Your task to perform on an android device: turn on location history Image 0: 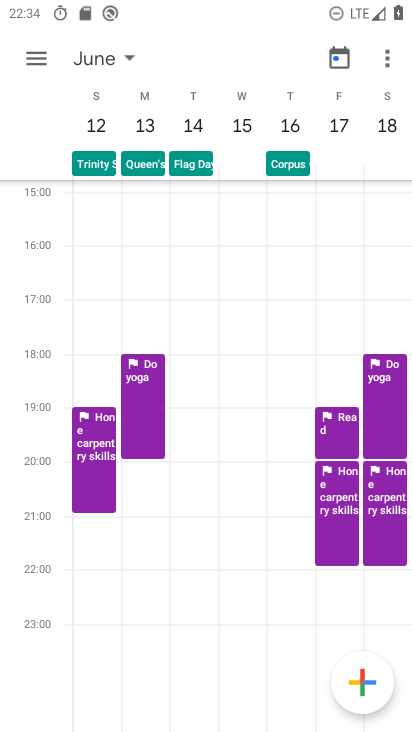
Step 0: press home button
Your task to perform on an android device: turn on location history Image 1: 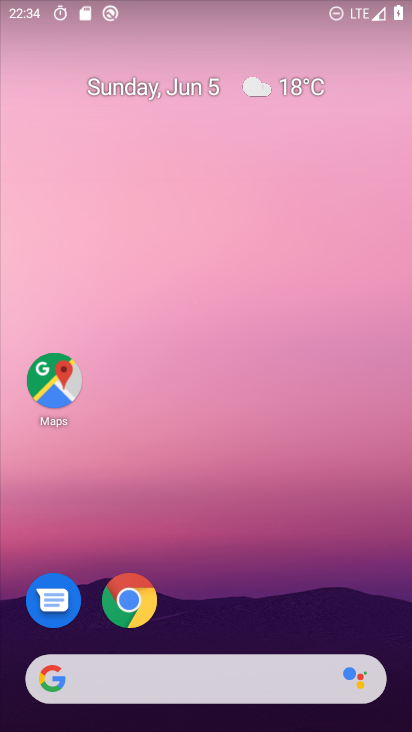
Step 1: drag from (323, 576) to (248, 127)
Your task to perform on an android device: turn on location history Image 2: 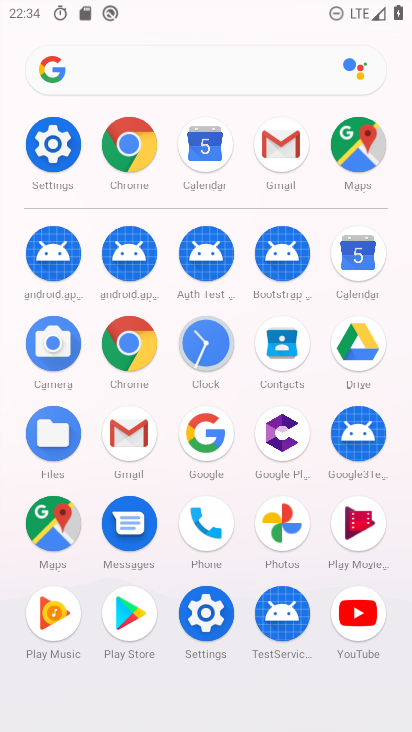
Step 2: click (59, 144)
Your task to perform on an android device: turn on location history Image 3: 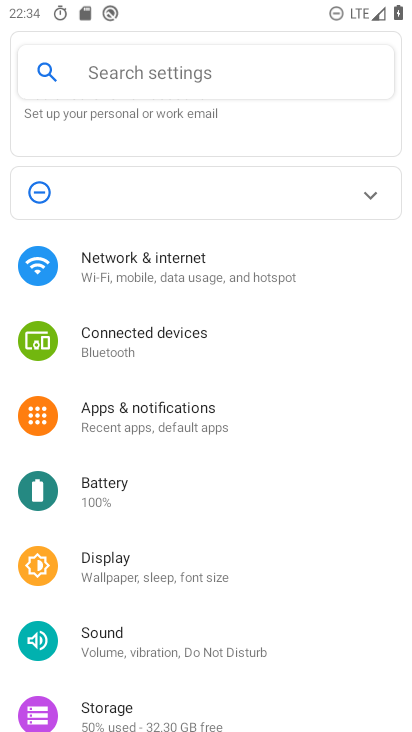
Step 3: drag from (217, 630) to (294, 160)
Your task to perform on an android device: turn on location history Image 4: 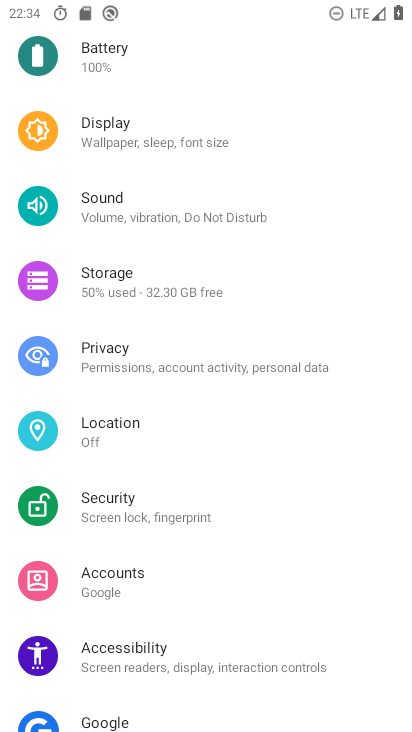
Step 4: click (97, 426)
Your task to perform on an android device: turn on location history Image 5: 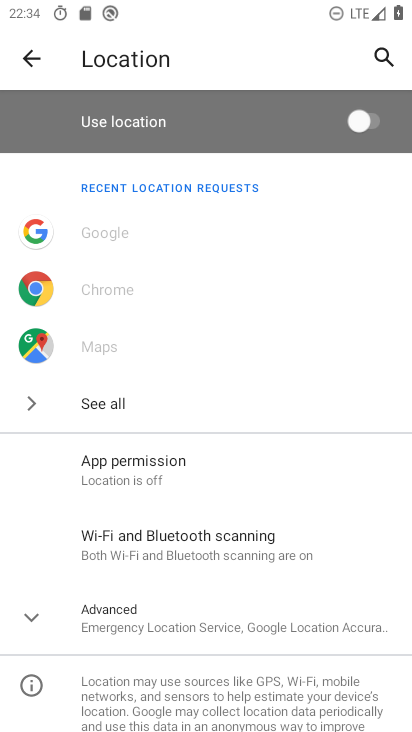
Step 5: click (121, 633)
Your task to perform on an android device: turn on location history Image 6: 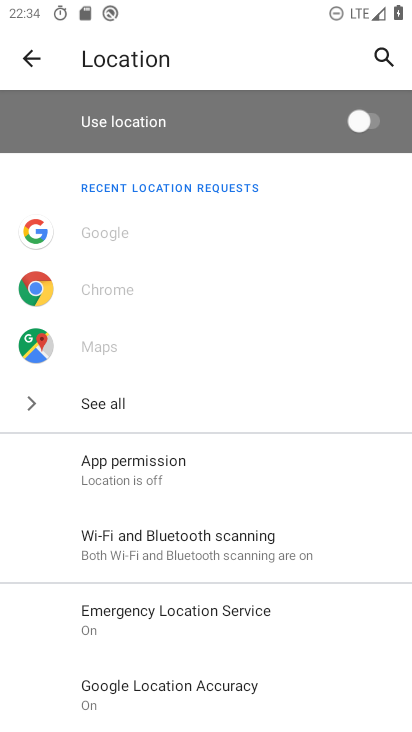
Step 6: drag from (216, 691) to (288, 238)
Your task to perform on an android device: turn on location history Image 7: 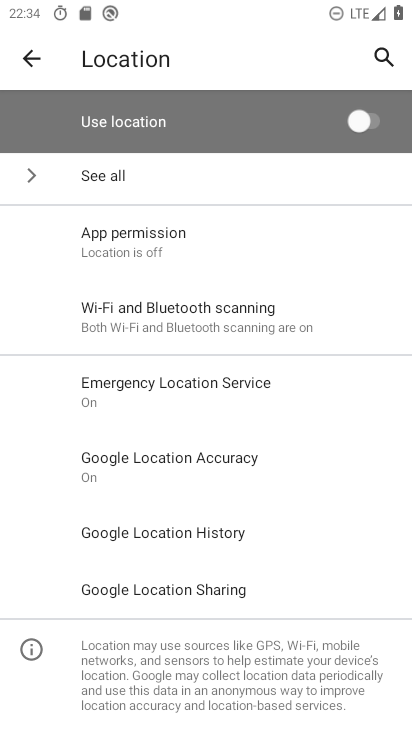
Step 7: click (174, 522)
Your task to perform on an android device: turn on location history Image 8: 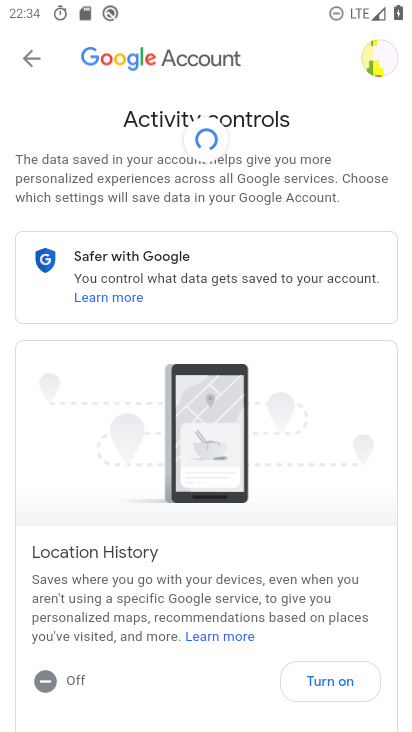
Step 8: click (336, 678)
Your task to perform on an android device: turn on location history Image 9: 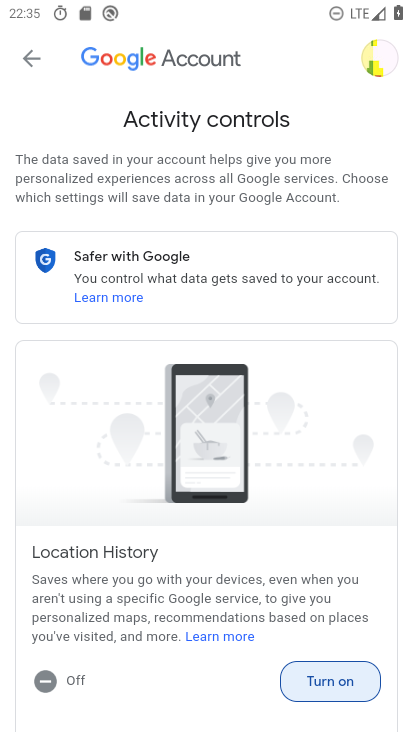
Step 9: click (346, 684)
Your task to perform on an android device: turn on location history Image 10: 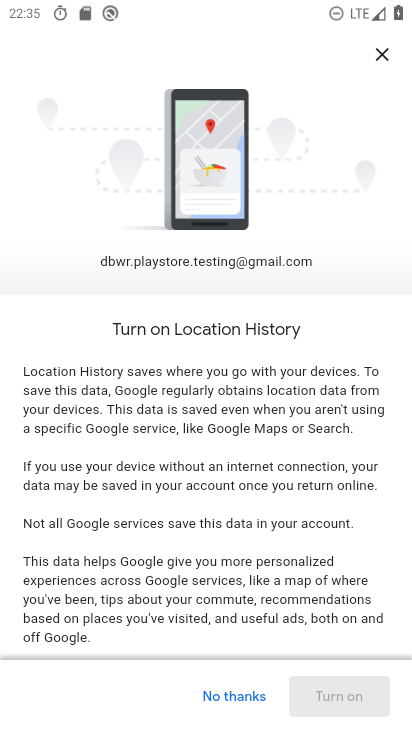
Step 10: drag from (310, 618) to (253, 94)
Your task to perform on an android device: turn on location history Image 11: 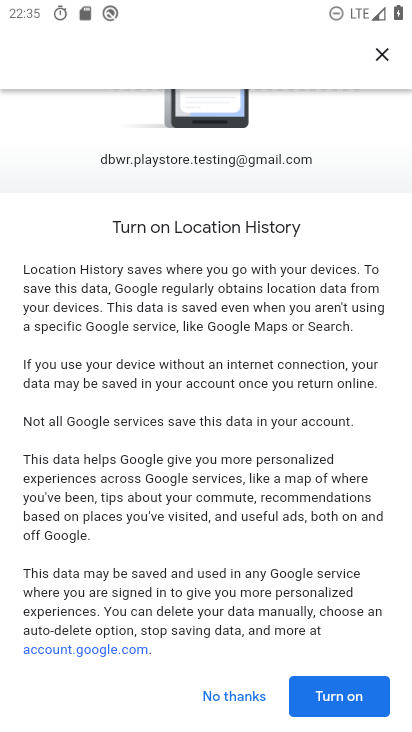
Step 11: click (355, 691)
Your task to perform on an android device: turn on location history Image 12: 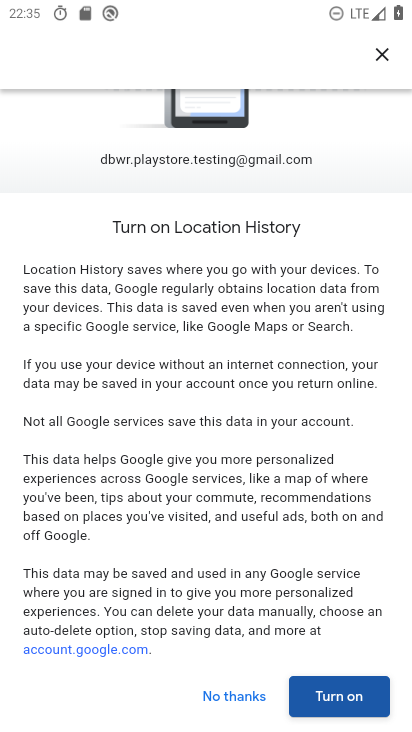
Step 12: click (323, 696)
Your task to perform on an android device: turn on location history Image 13: 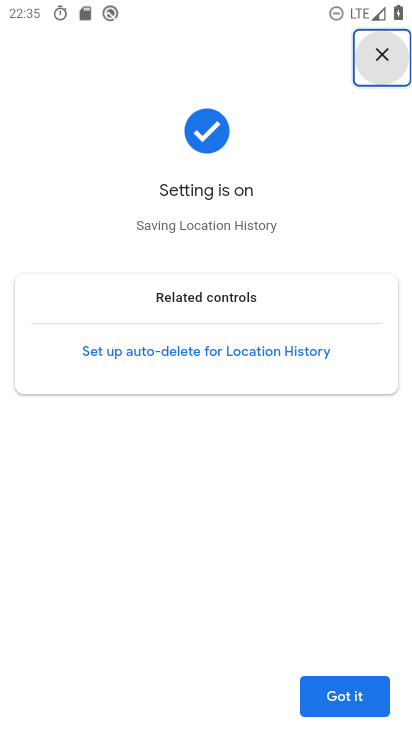
Step 13: task complete